Your task to perform on an android device: turn on javascript in the chrome app Image 0: 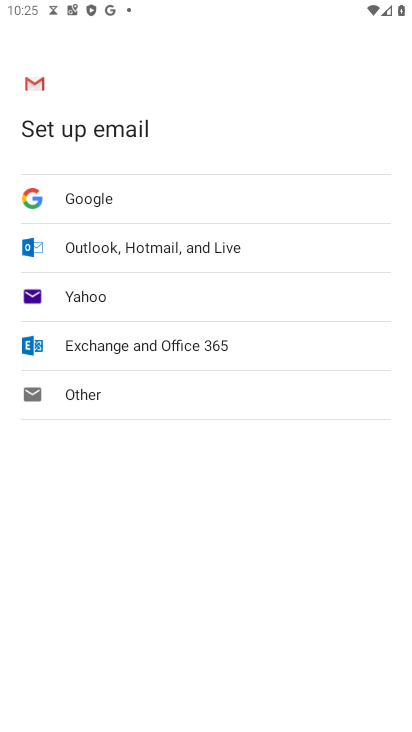
Step 0: press home button
Your task to perform on an android device: turn on javascript in the chrome app Image 1: 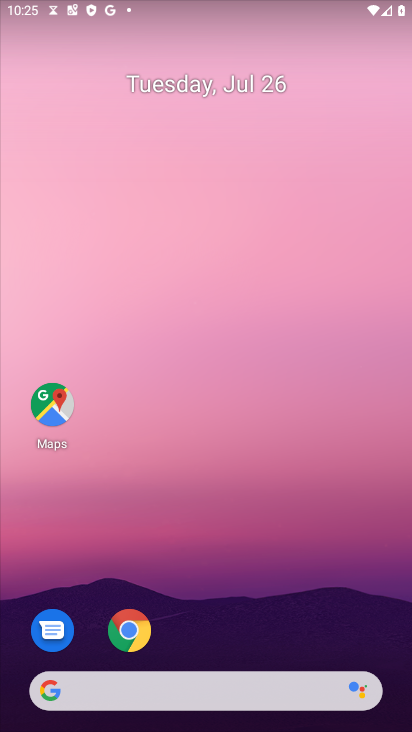
Step 1: click (127, 631)
Your task to perform on an android device: turn on javascript in the chrome app Image 2: 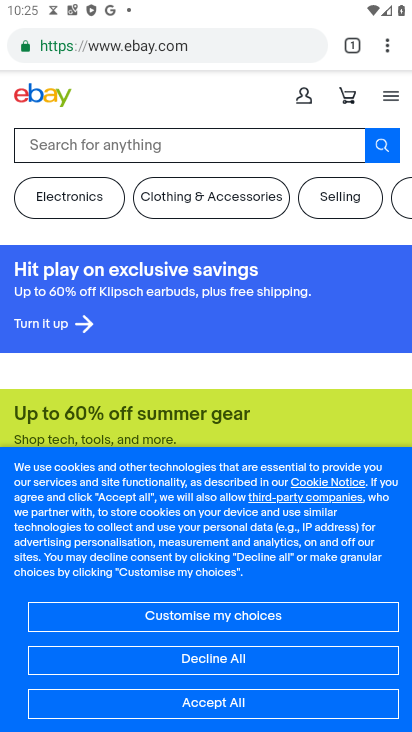
Step 2: click (387, 44)
Your task to perform on an android device: turn on javascript in the chrome app Image 3: 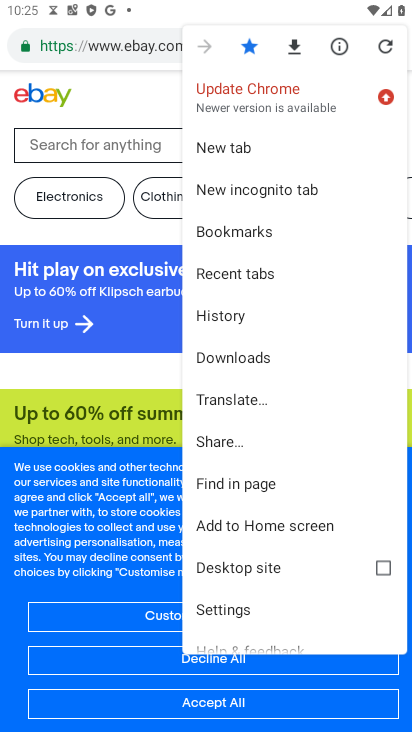
Step 3: click (228, 611)
Your task to perform on an android device: turn on javascript in the chrome app Image 4: 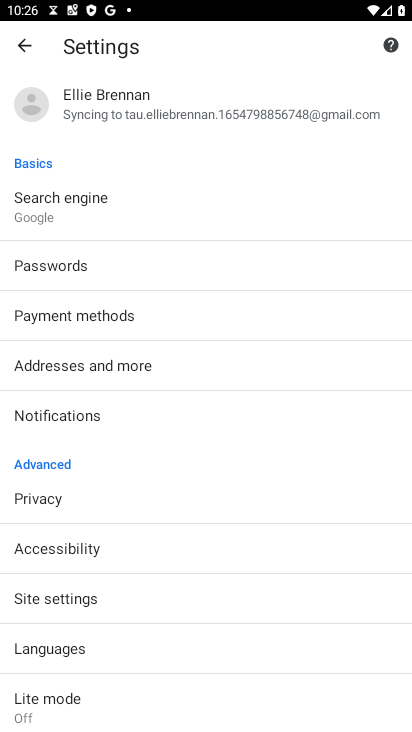
Step 4: click (55, 599)
Your task to perform on an android device: turn on javascript in the chrome app Image 5: 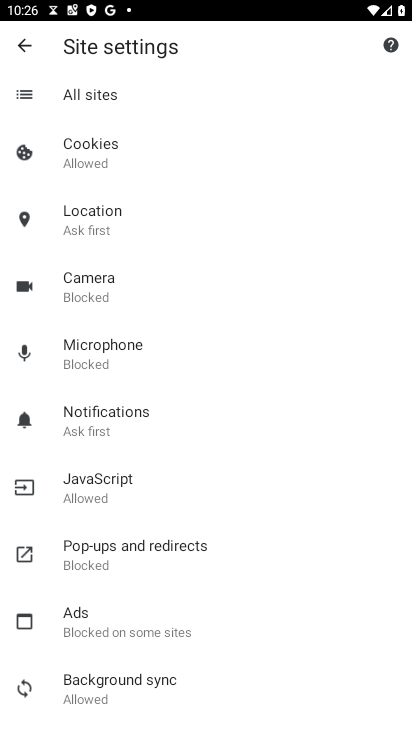
Step 5: click (89, 493)
Your task to perform on an android device: turn on javascript in the chrome app Image 6: 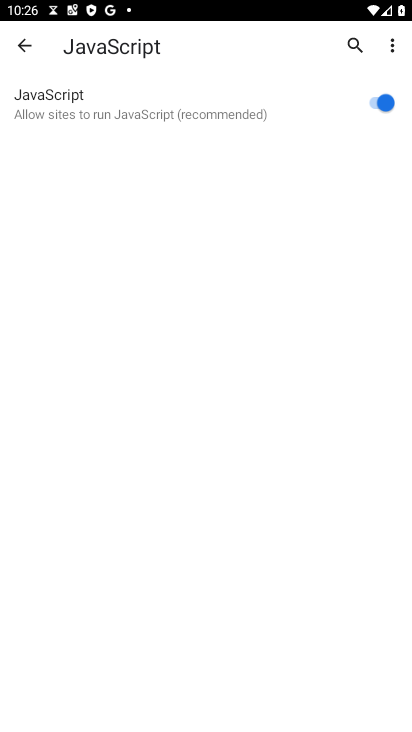
Step 6: task complete